Your task to perform on an android device: allow cookies in the chrome app Image 0: 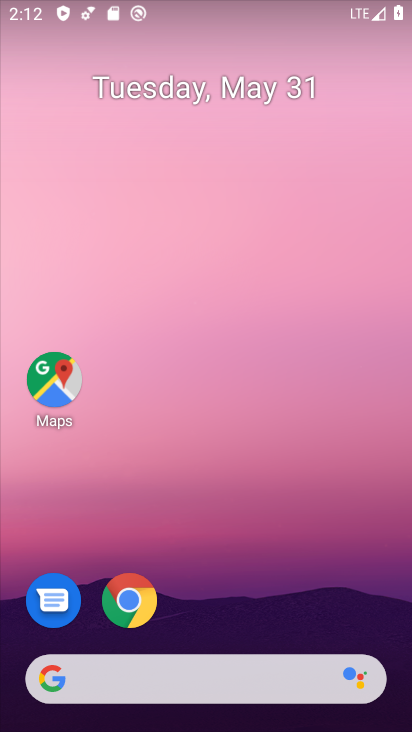
Step 0: click (128, 596)
Your task to perform on an android device: allow cookies in the chrome app Image 1: 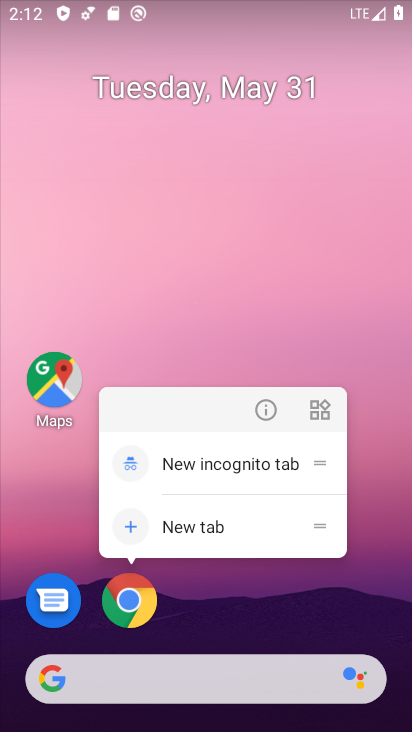
Step 1: click (135, 602)
Your task to perform on an android device: allow cookies in the chrome app Image 2: 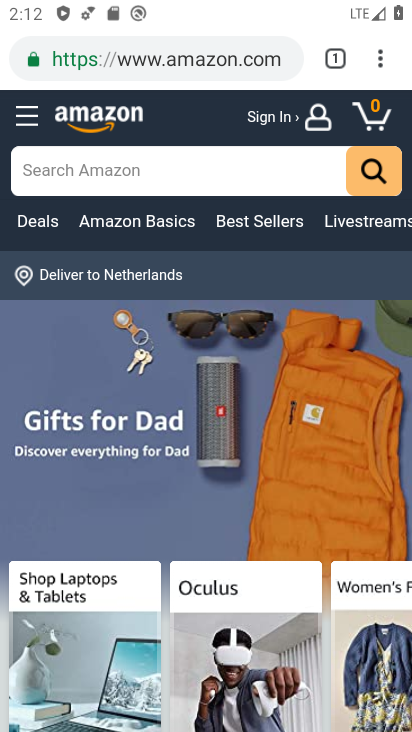
Step 2: click (382, 55)
Your task to perform on an android device: allow cookies in the chrome app Image 3: 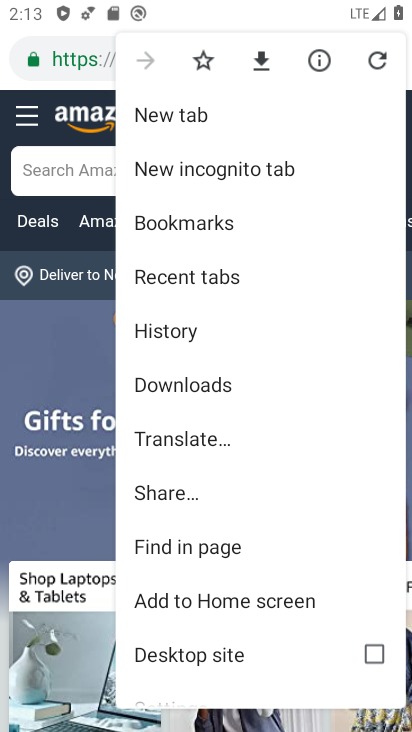
Step 3: drag from (242, 622) to (288, 181)
Your task to perform on an android device: allow cookies in the chrome app Image 4: 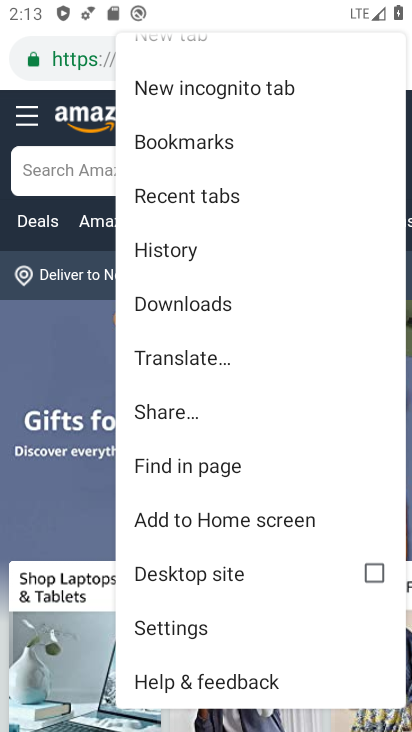
Step 4: click (213, 624)
Your task to perform on an android device: allow cookies in the chrome app Image 5: 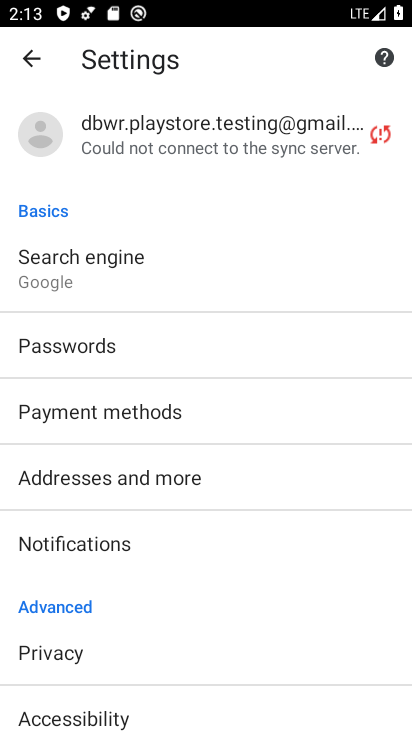
Step 5: drag from (242, 648) to (243, 62)
Your task to perform on an android device: allow cookies in the chrome app Image 6: 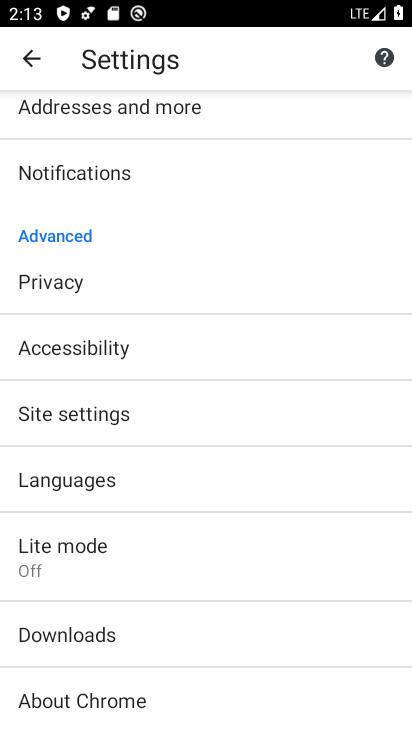
Step 6: click (145, 408)
Your task to perform on an android device: allow cookies in the chrome app Image 7: 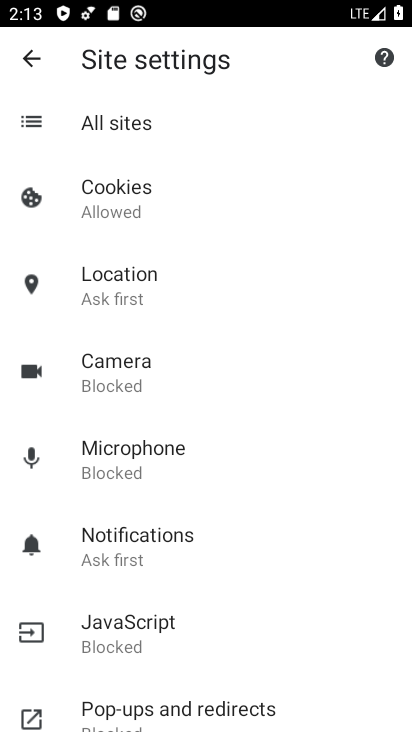
Step 7: click (79, 202)
Your task to perform on an android device: allow cookies in the chrome app Image 8: 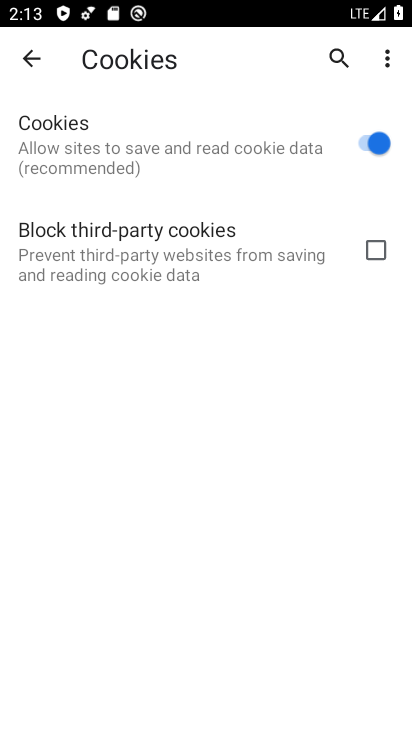
Step 8: task complete